Your task to perform on an android device: Go to location settings Image 0: 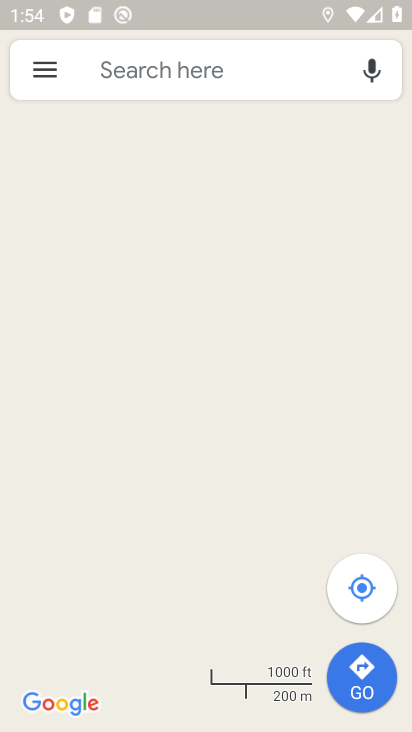
Step 0: press home button
Your task to perform on an android device: Go to location settings Image 1: 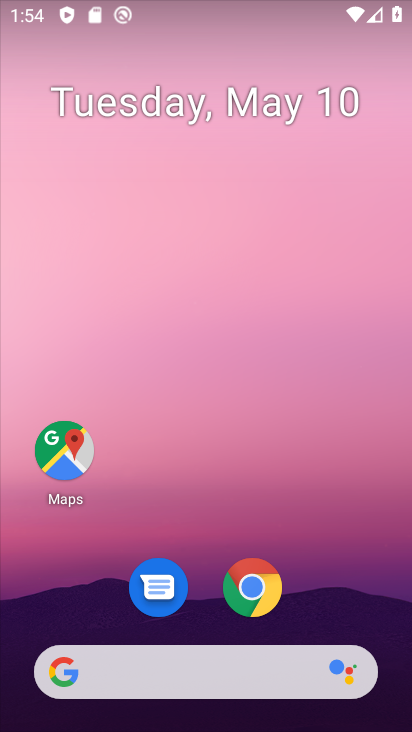
Step 1: drag from (353, 590) to (323, 151)
Your task to perform on an android device: Go to location settings Image 2: 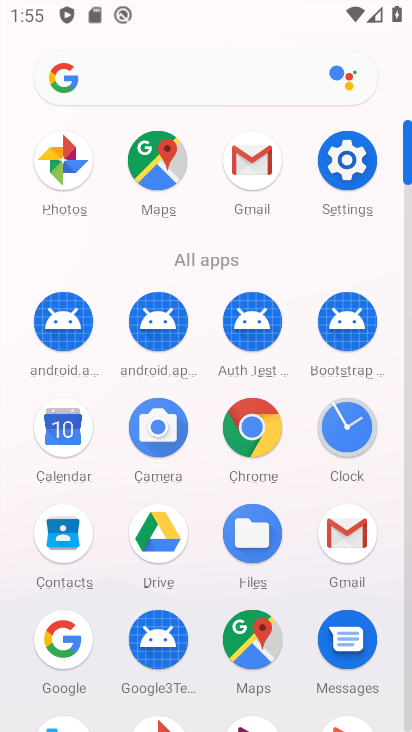
Step 2: click (338, 154)
Your task to perform on an android device: Go to location settings Image 3: 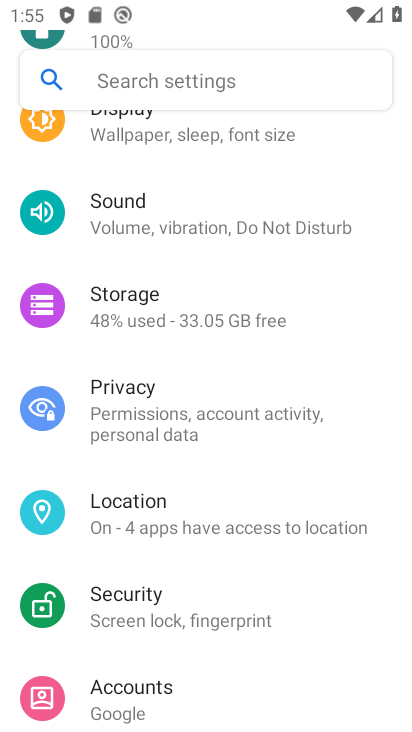
Step 3: drag from (204, 283) to (228, 512)
Your task to perform on an android device: Go to location settings Image 4: 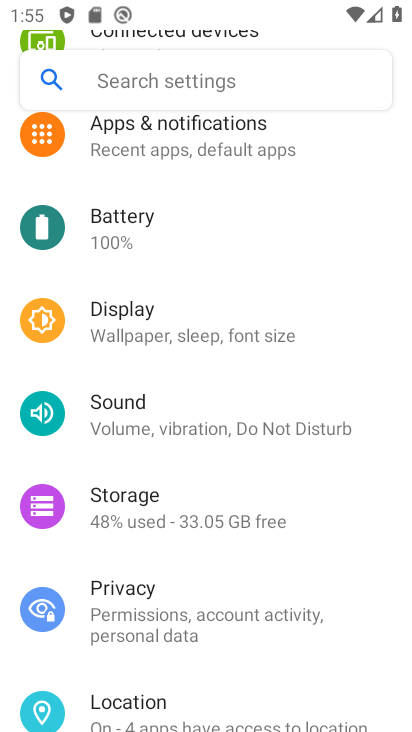
Step 4: drag from (214, 292) to (261, 288)
Your task to perform on an android device: Go to location settings Image 5: 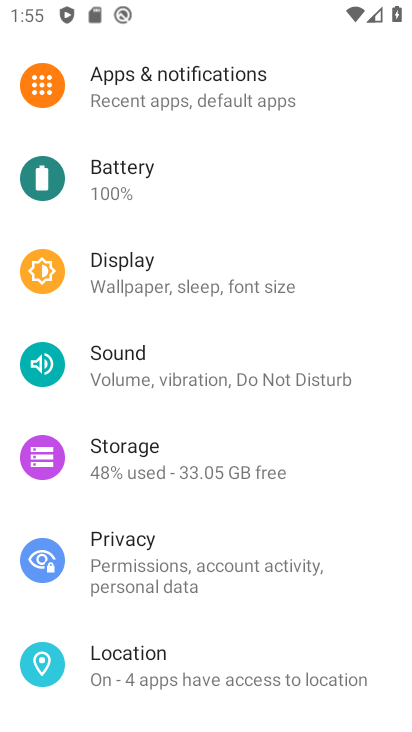
Step 5: click (211, 653)
Your task to perform on an android device: Go to location settings Image 6: 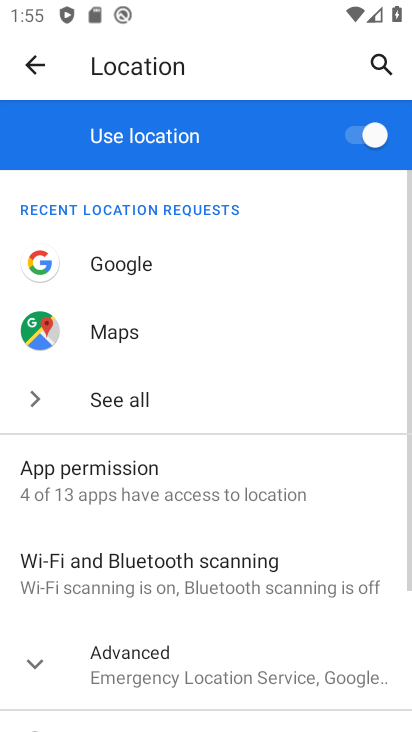
Step 6: task complete